Your task to perform on an android device: find snoozed emails in the gmail app Image 0: 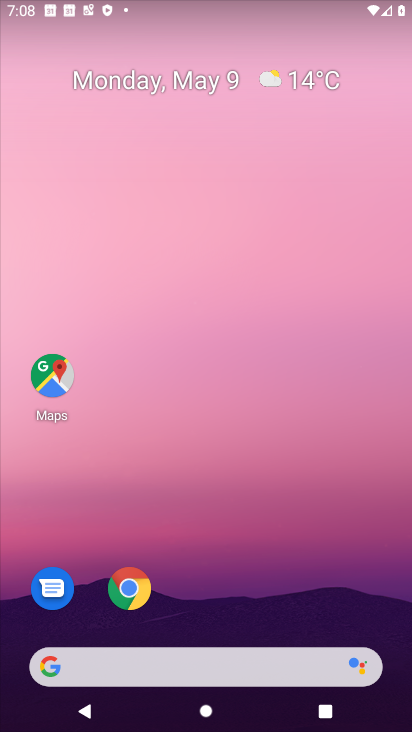
Step 0: drag from (326, 624) to (296, 40)
Your task to perform on an android device: find snoozed emails in the gmail app Image 1: 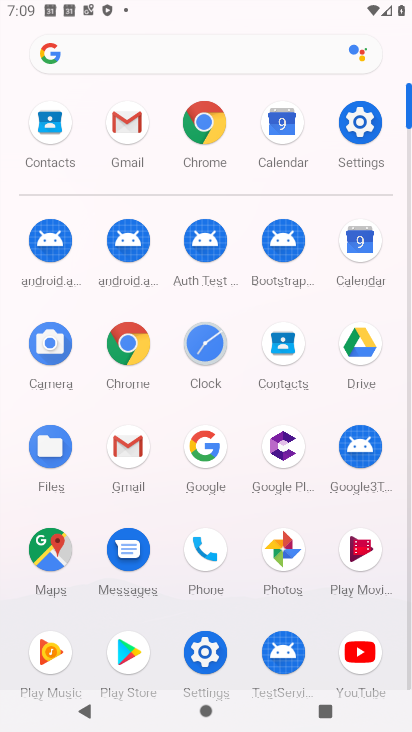
Step 1: click (145, 451)
Your task to perform on an android device: find snoozed emails in the gmail app Image 2: 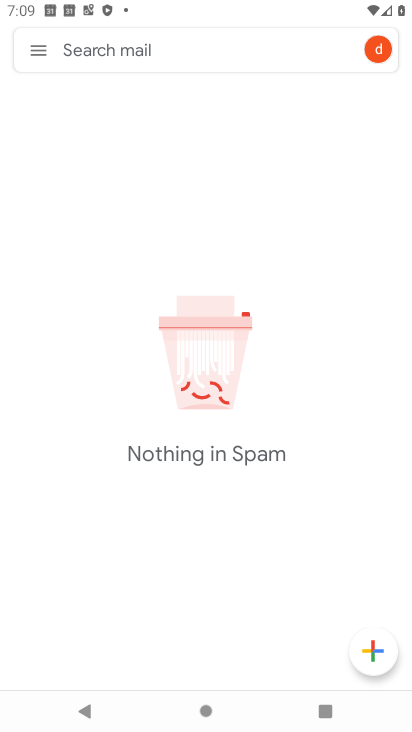
Step 2: click (22, 52)
Your task to perform on an android device: find snoozed emails in the gmail app Image 3: 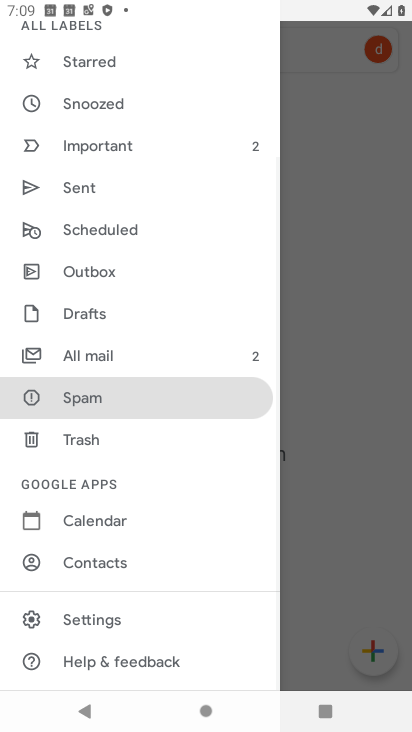
Step 3: click (50, 114)
Your task to perform on an android device: find snoozed emails in the gmail app Image 4: 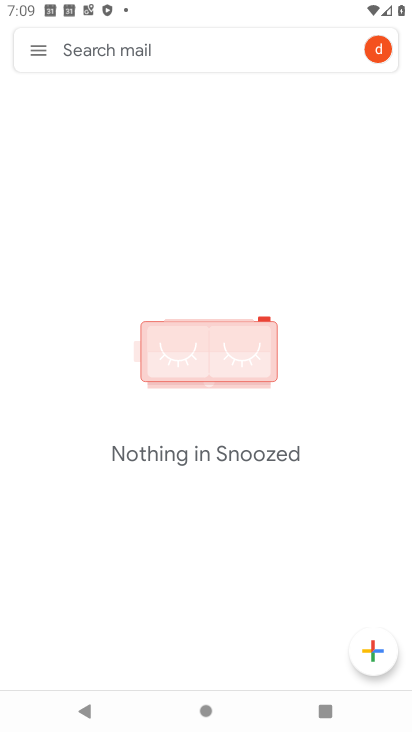
Step 4: task complete